Your task to perform on an android device: set an alarm Image 0: 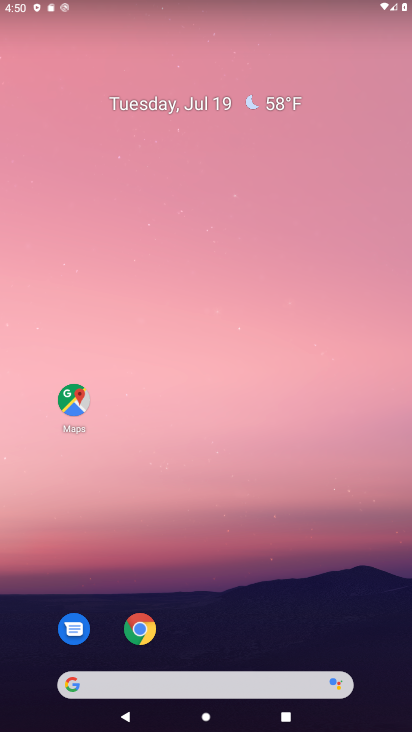
Step 0: drag from (203, 570) to (88, 345)
Your task to perform on an android device: set an alarm Image 1: 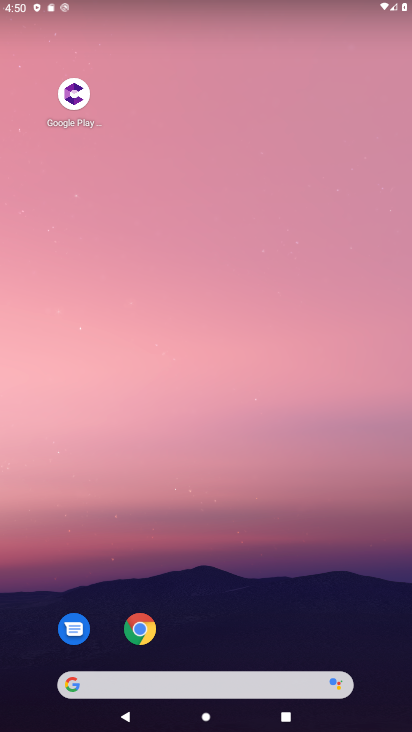
Step 1: drag from (223, 496) to (221, 133)
Your task to perform on an android device: set an alarm Image 2: 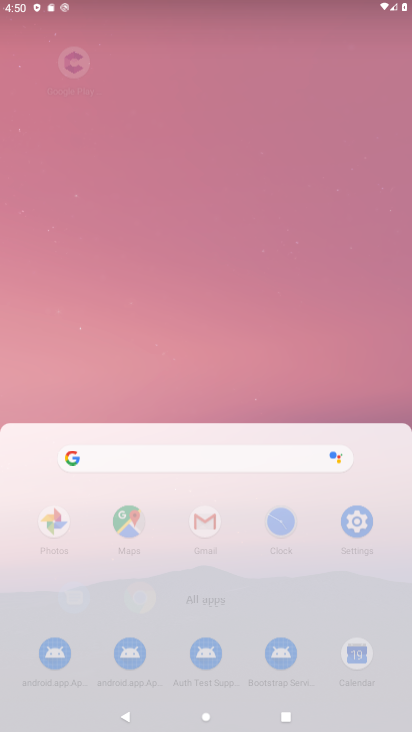
Step 2: drag from (215, 613) to (229, 242)
Your task to perform on an android device: set an alarm Image 3: 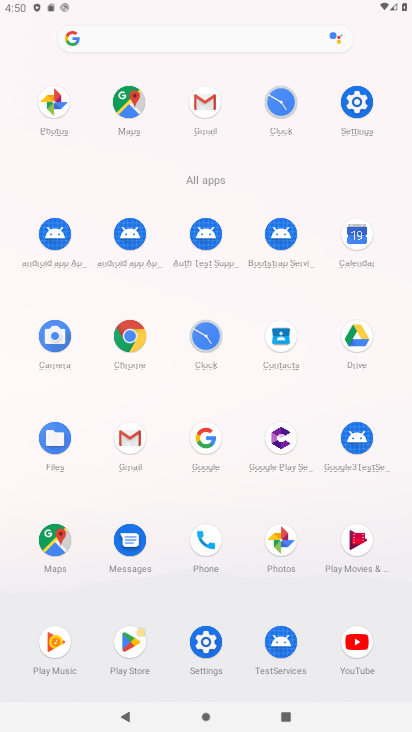
Step 3: click (199, 334)
Your task to perform on an android device: set an alarm Image 4: 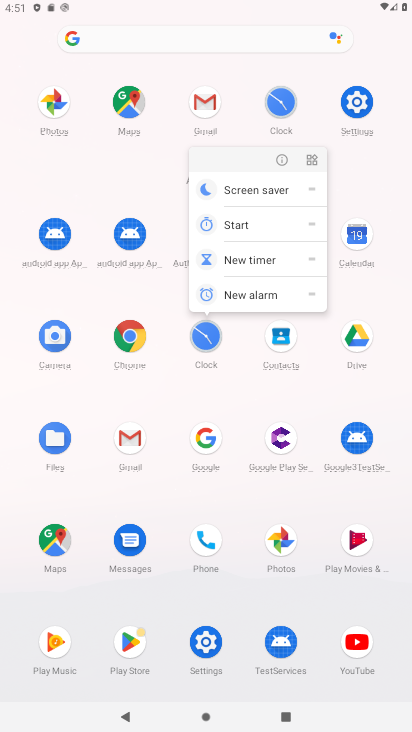
Step 4: click (284, 94)
Your task to perform on an android device: set an alarm Image 5: 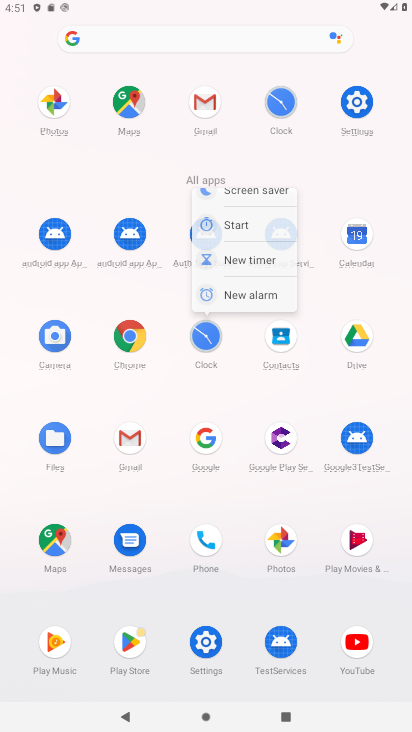
Step 5: click (284, 94)
Your task to perform on an android device: set an alarm Image 6: 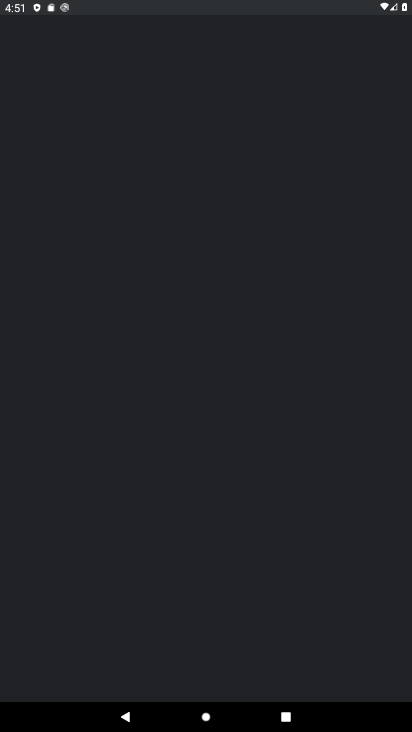
Step 6: click (279, 106)
Your task to perform on an android device: set an alarm Image 7: 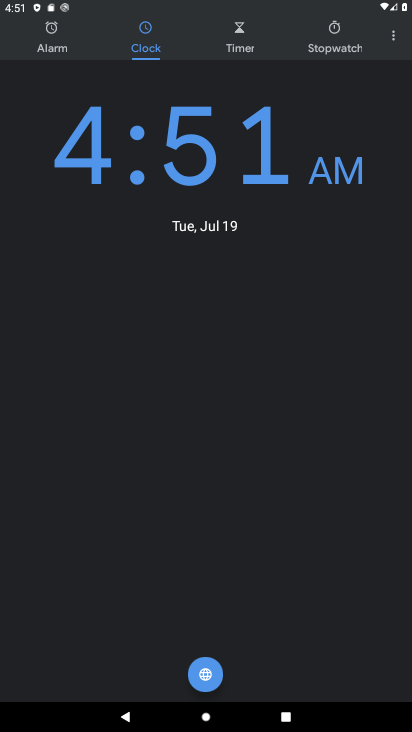
Step 7: click (44, 37)
Your task to perform on an android device: set an alarm Image 8: 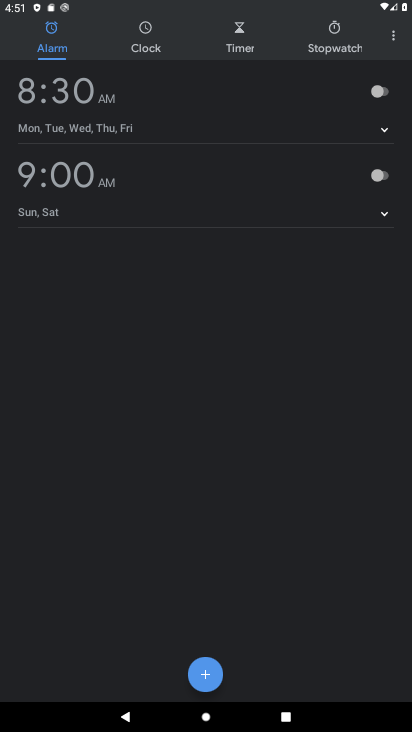
Step 8: click (388, 102)
Your task to perform on an android device: set an alarm Image 9: 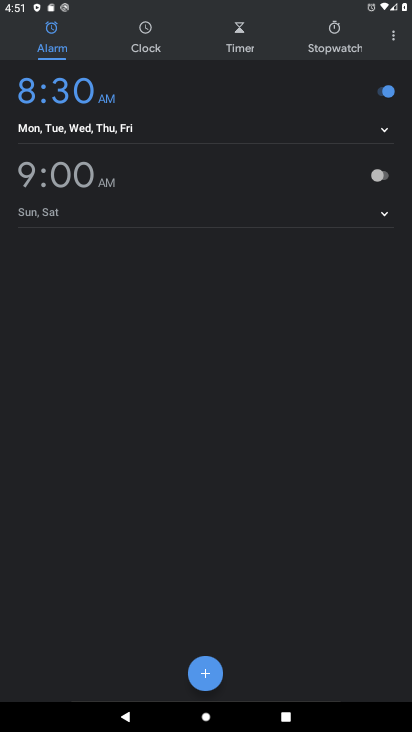
Step 9: task complete